Your task to perform on an android device: Open ESPN.com Image 0: 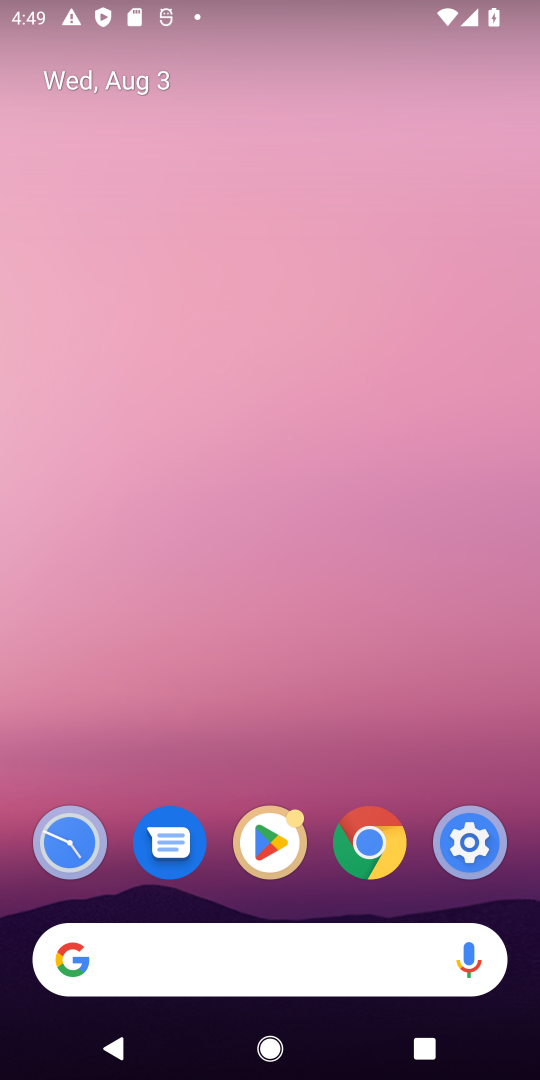
Step 0: click (351, 947)
Your task to perform on an android device: Open ESPN.com Image 1: 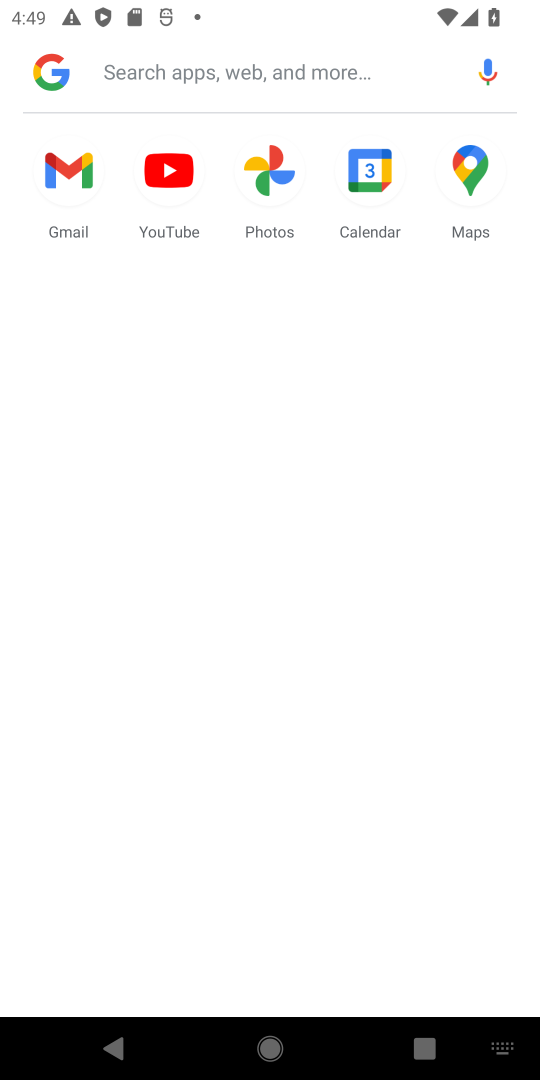
Step 1: type "espn.com"
Your task to perform on an android device: Open ESPN.com Image 2: 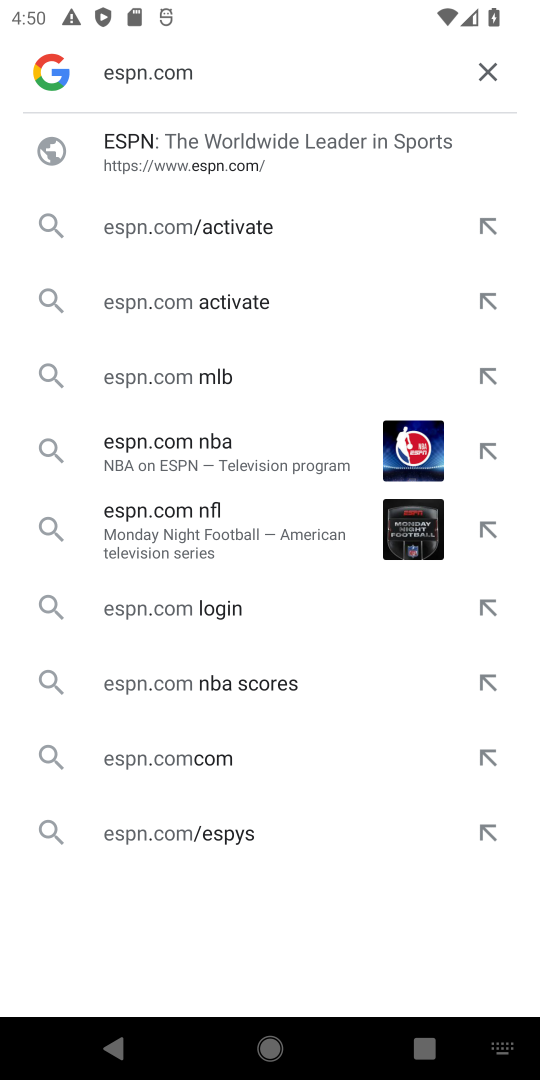
Step 2: click (311, 155)
Your task to perform on an android device: Open ESPN.com Image 3: 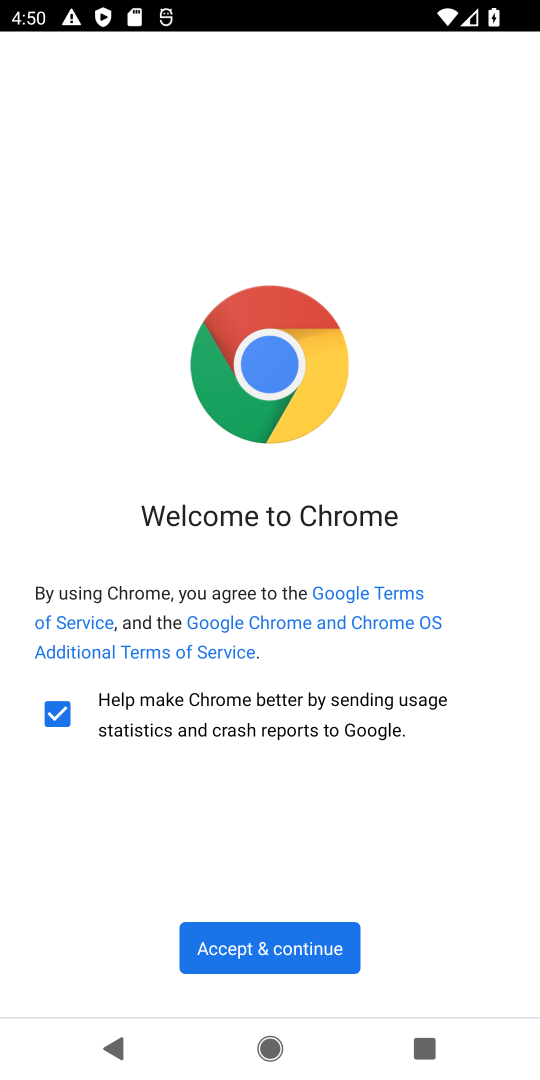
Step 3: click (319, 964)
Your task to perform on an android device: Open ESPN.com Image 4: 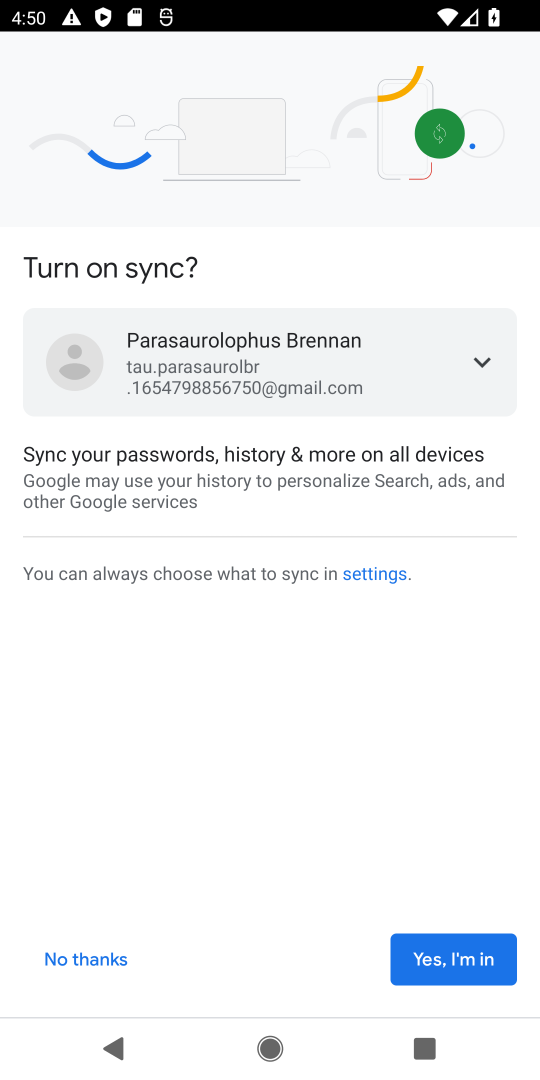
Step 4: click (417, 975)
Your task to perform on an android device: Open ESPN.com Image 5: 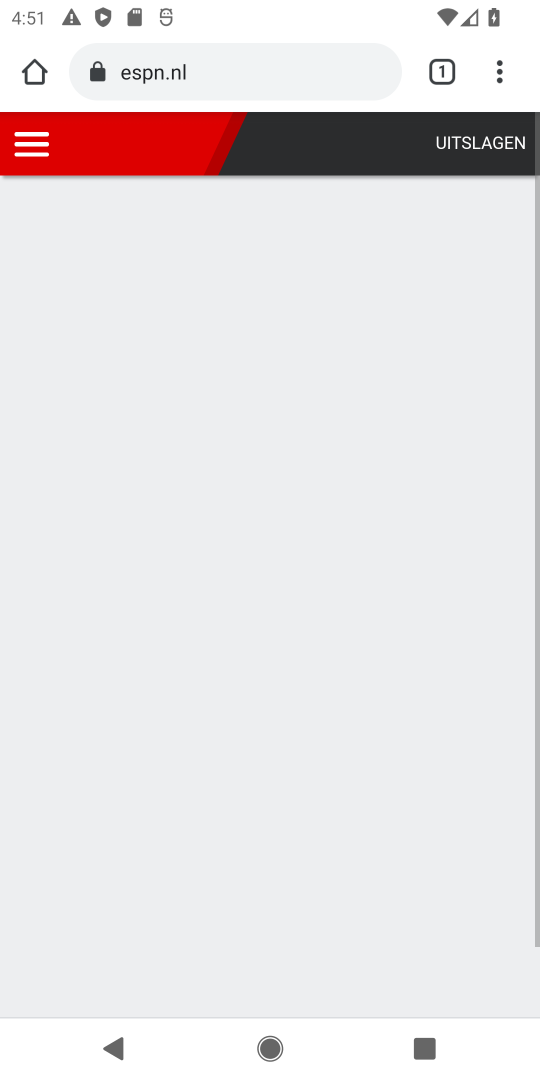
Step 5: task complete